Your task to perform on an android device: turn on improve location accuracy Image 0: 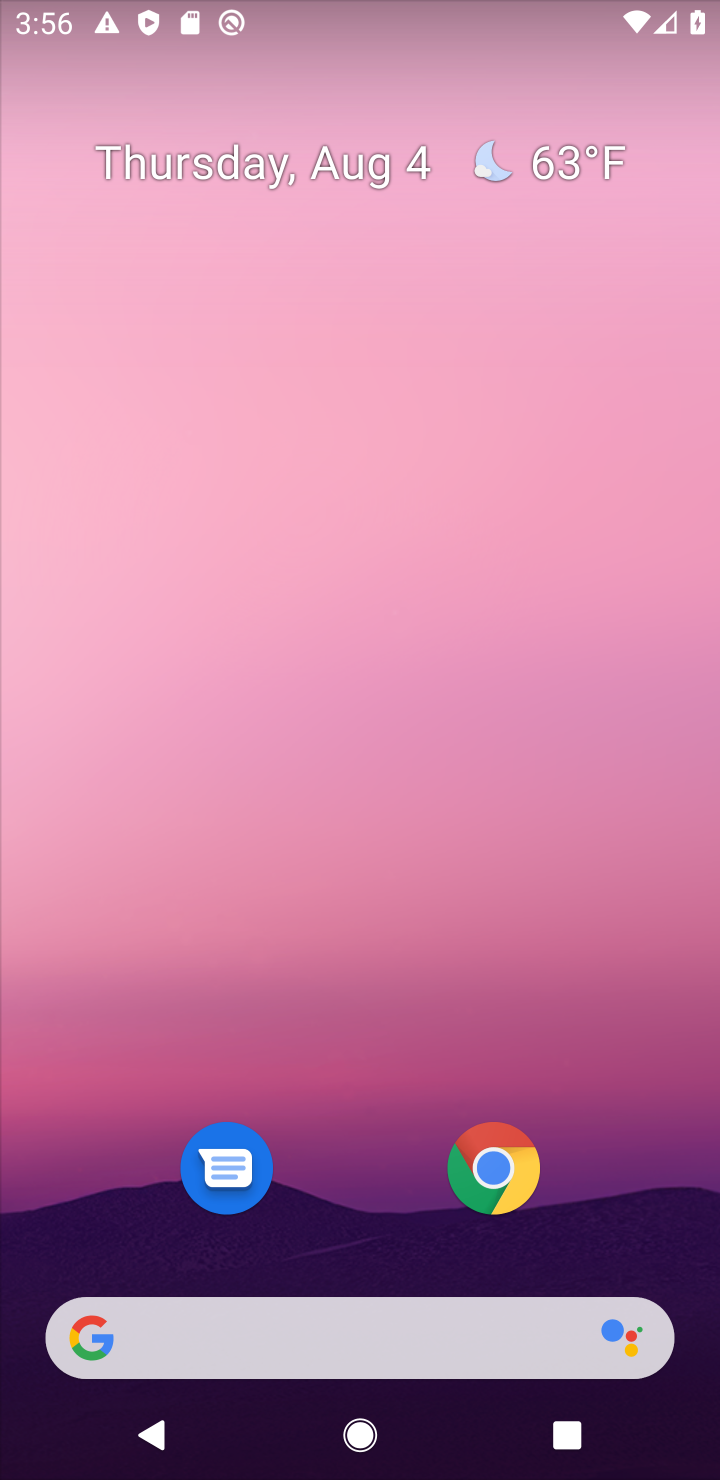
Step 0: drag from (351, 1303) to (288, 85)
Your task to perform on an android device: turn on improve location accuracy Image 1: 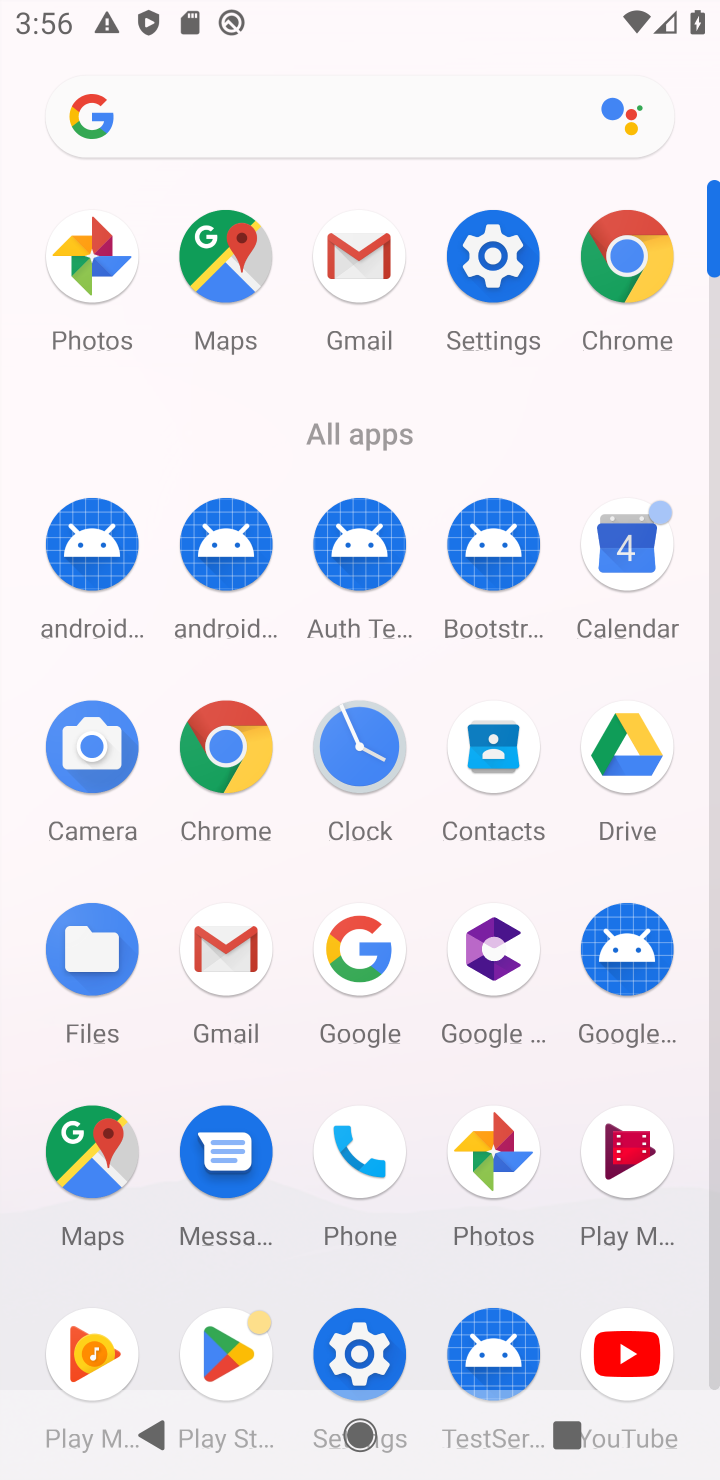
Step 1: click (485, 272)
Your task to perform on an android device: turn on improve location accuracy Image 2: 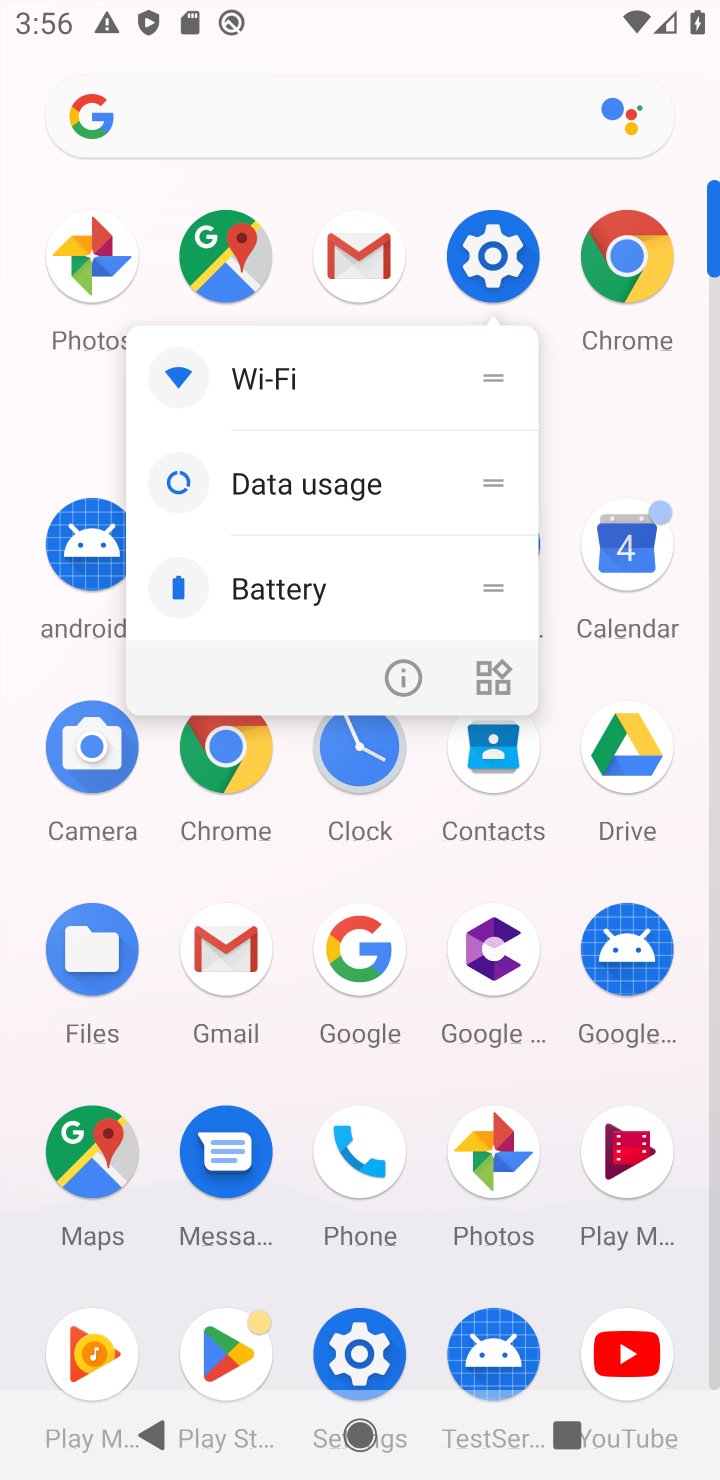
Step 2: click (520, 266)
Your task to perform on an android device: turn on improve location accuracy Image 3: 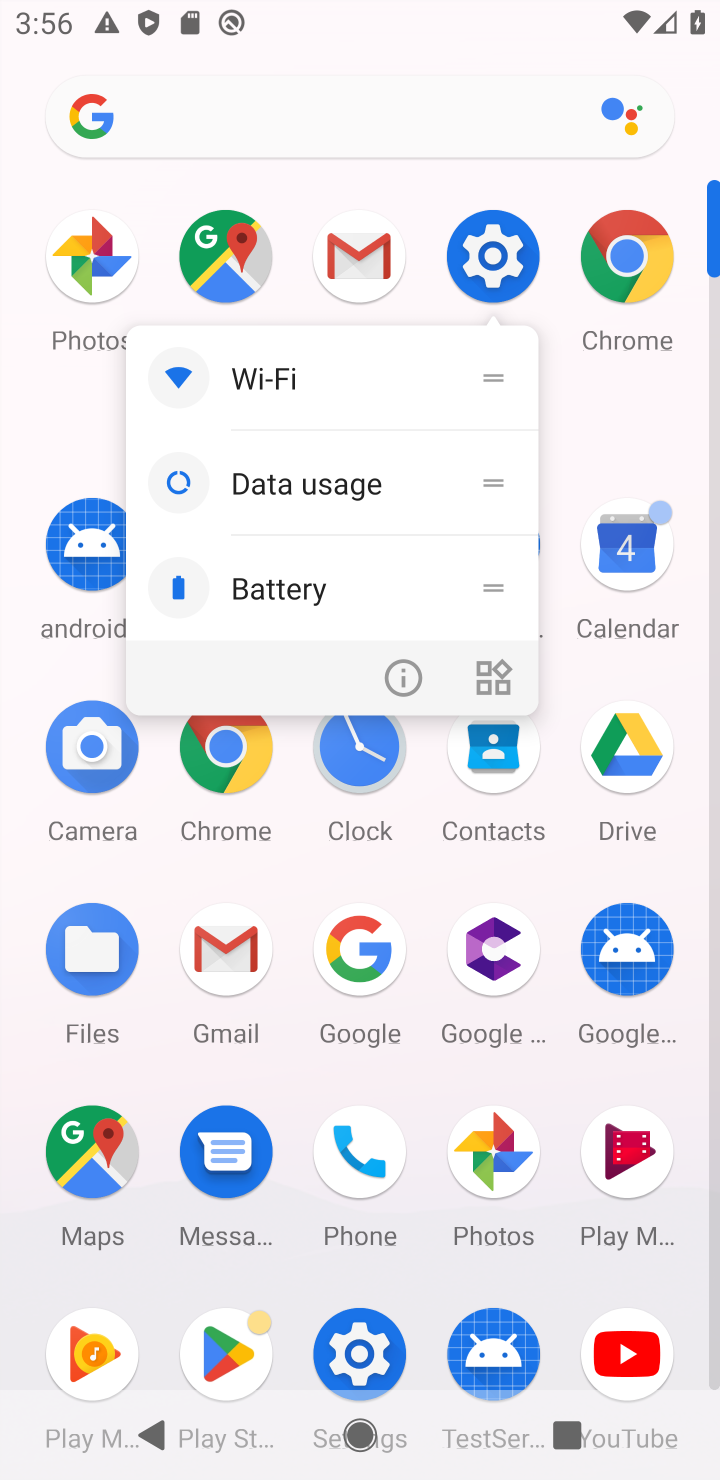
Step 3: click (392, 1325)
Your task to perform on an android device: turn on improve location accuracy Image 4: 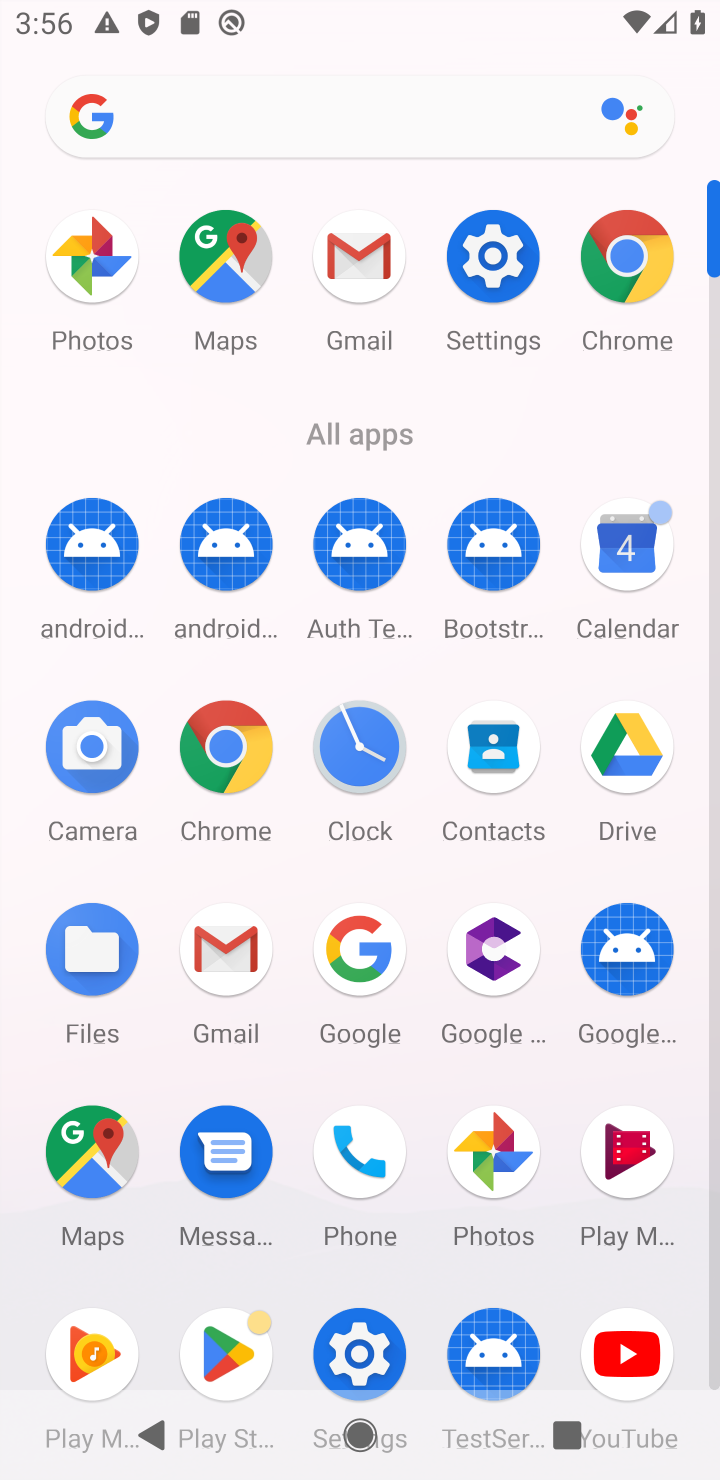
Step 4: click (365, 1334)
Your task to perform on an android device: turn on improve location accuracy Image 5: 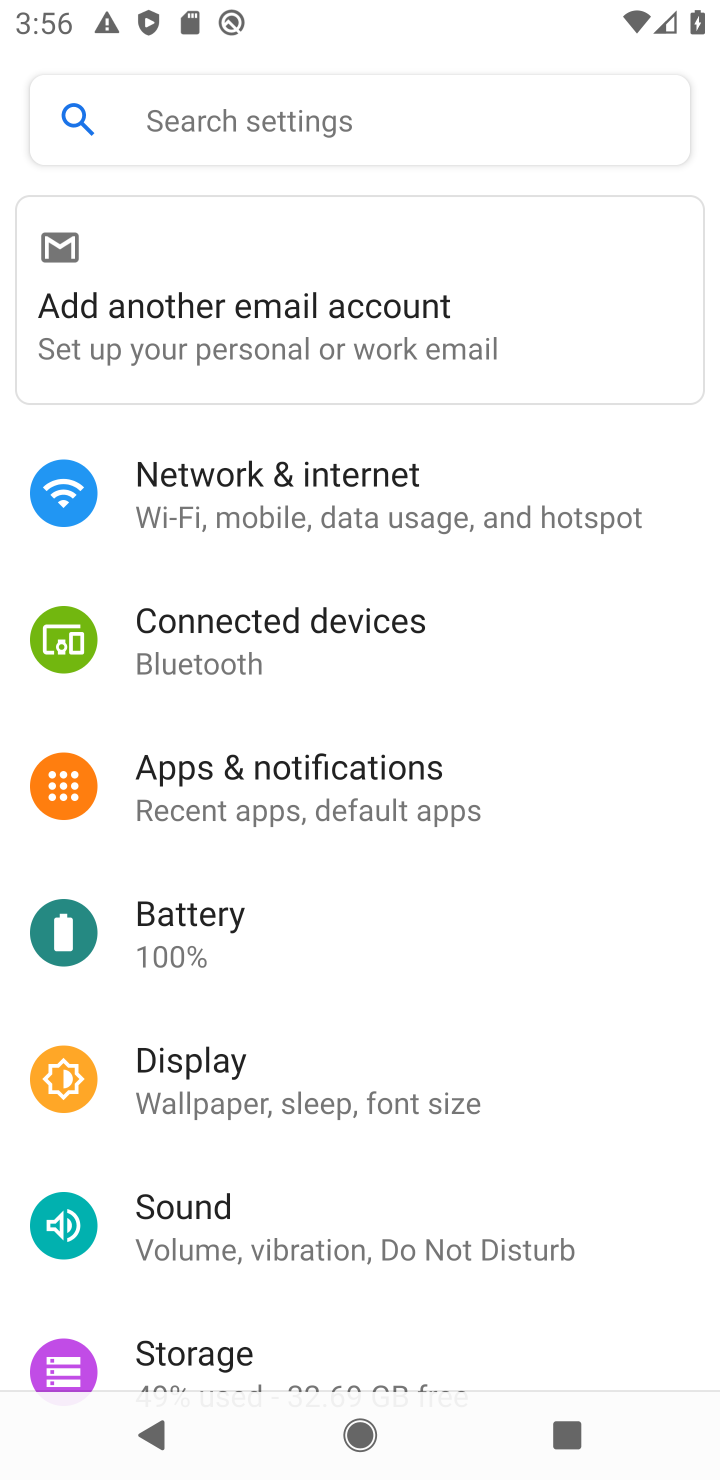
Step 5: drag from (406, 1243) to (375, 57)
Your task to perform on an android device: turn on improve location accuracy Image 6: 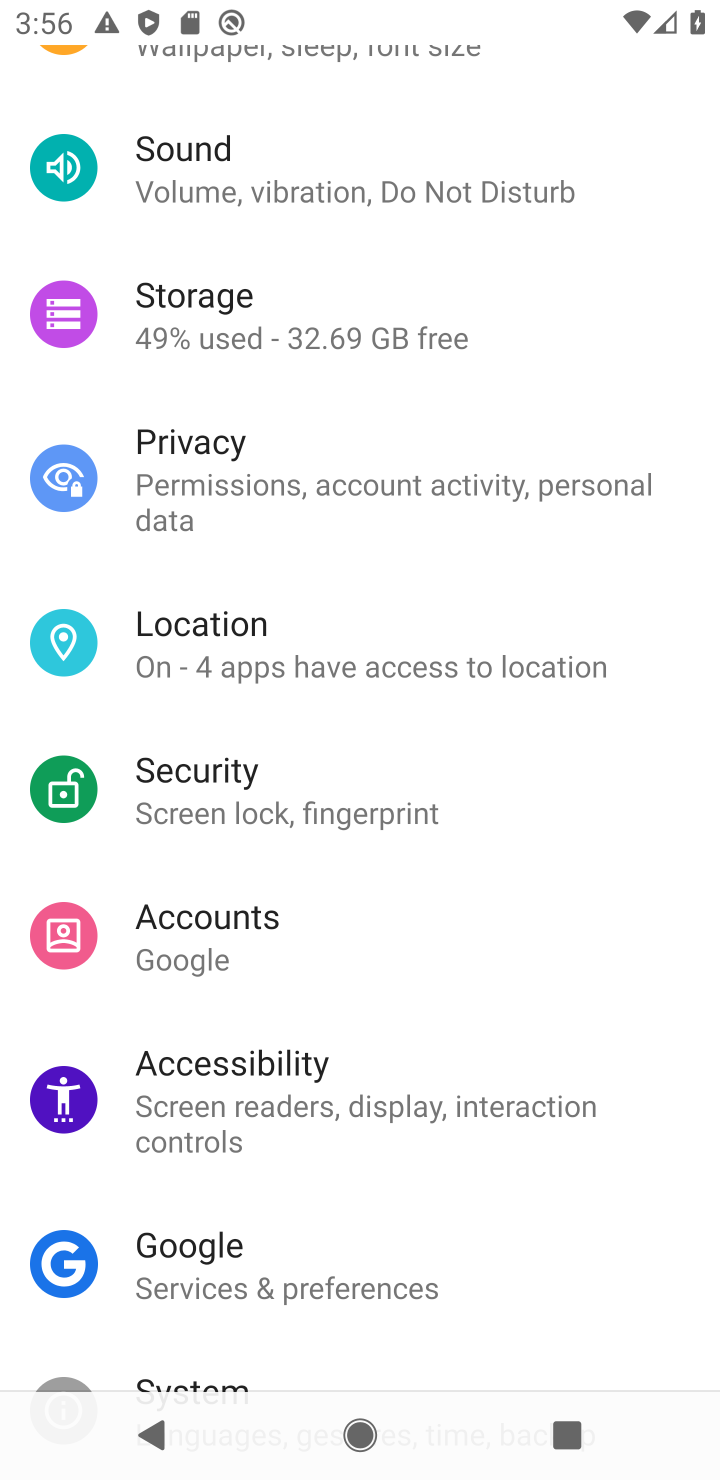
Step 6: drag from (378, 1181) to (359, 420)
Your task to perform on an android device: turn on improve location accuracy Image 7: 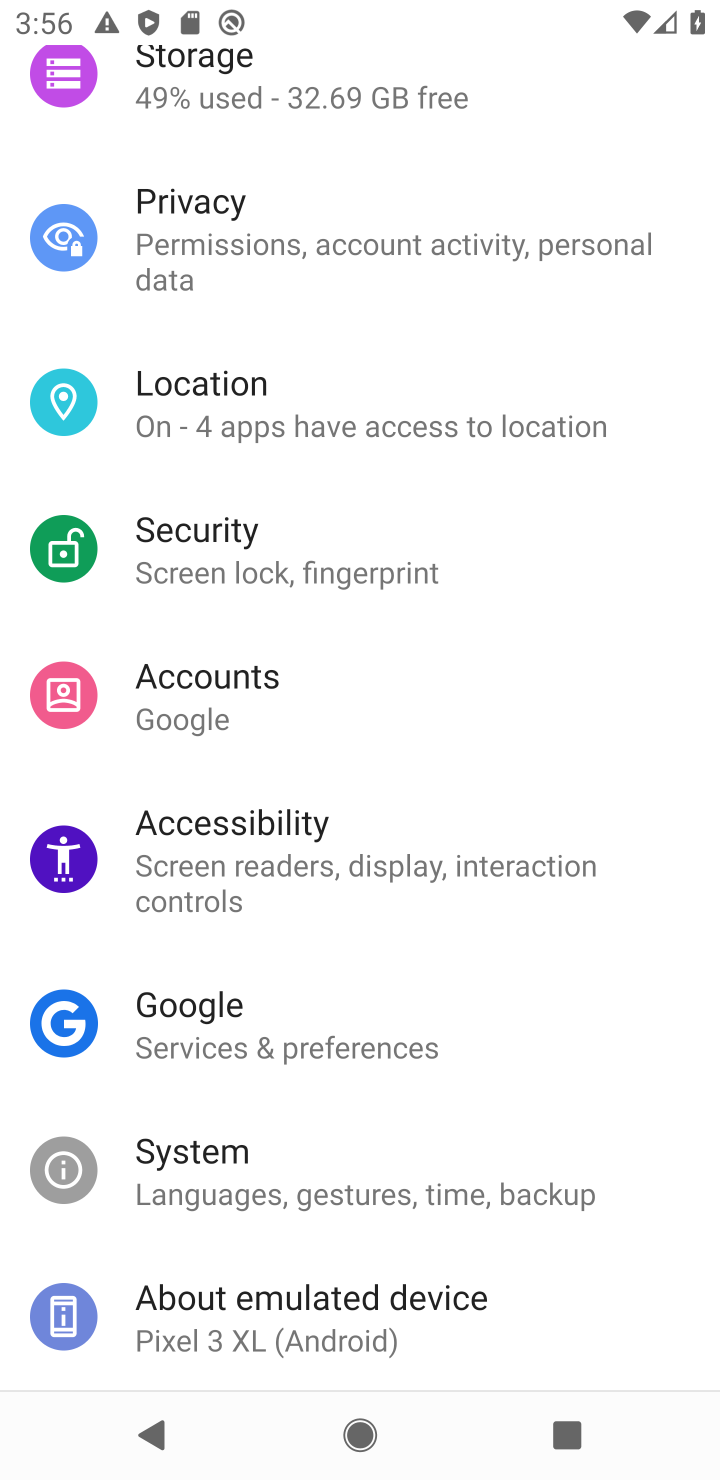
Step 7: click (286, 408)
Your task to perform on an android device: turn on improve location accuracy Image 8: 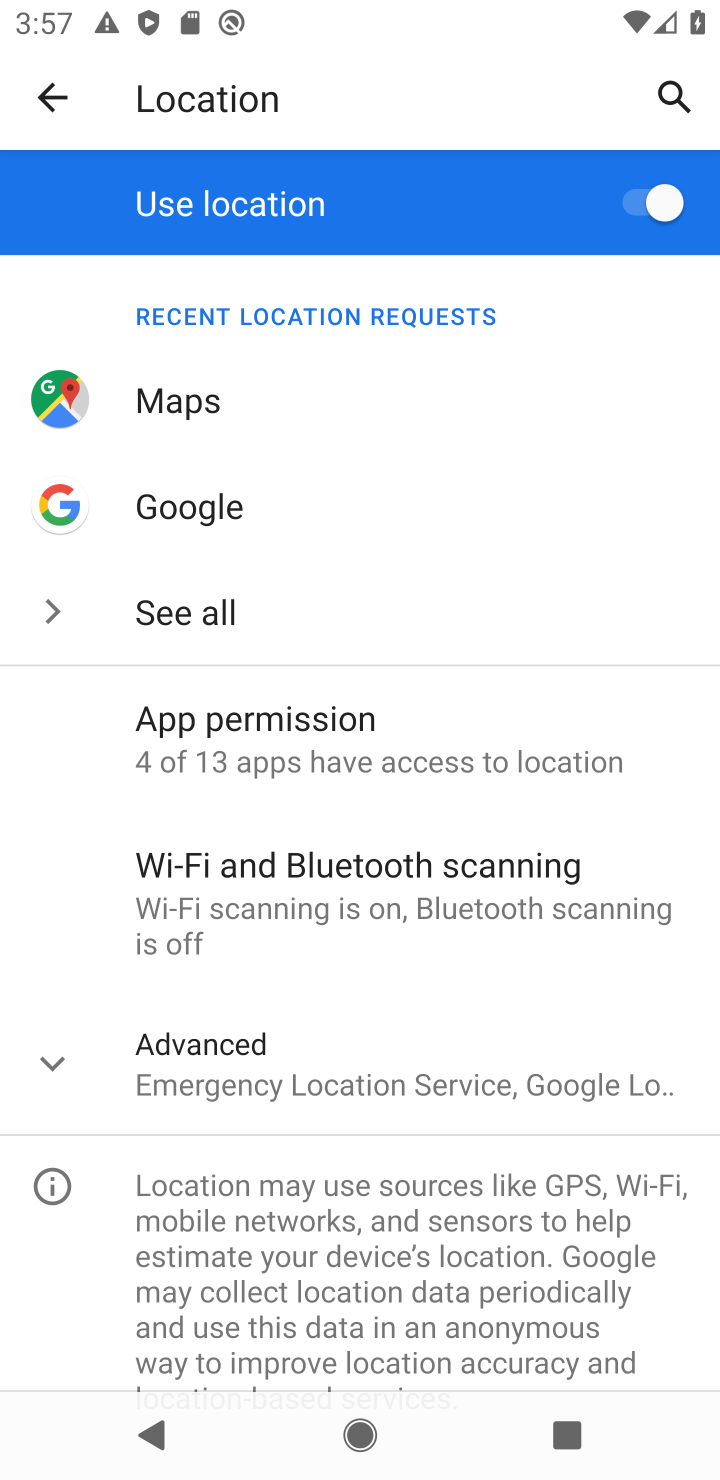
Step 8: click (272, 1025)
Your task to perform on an android device: turn on improve location accuracy Image 9: 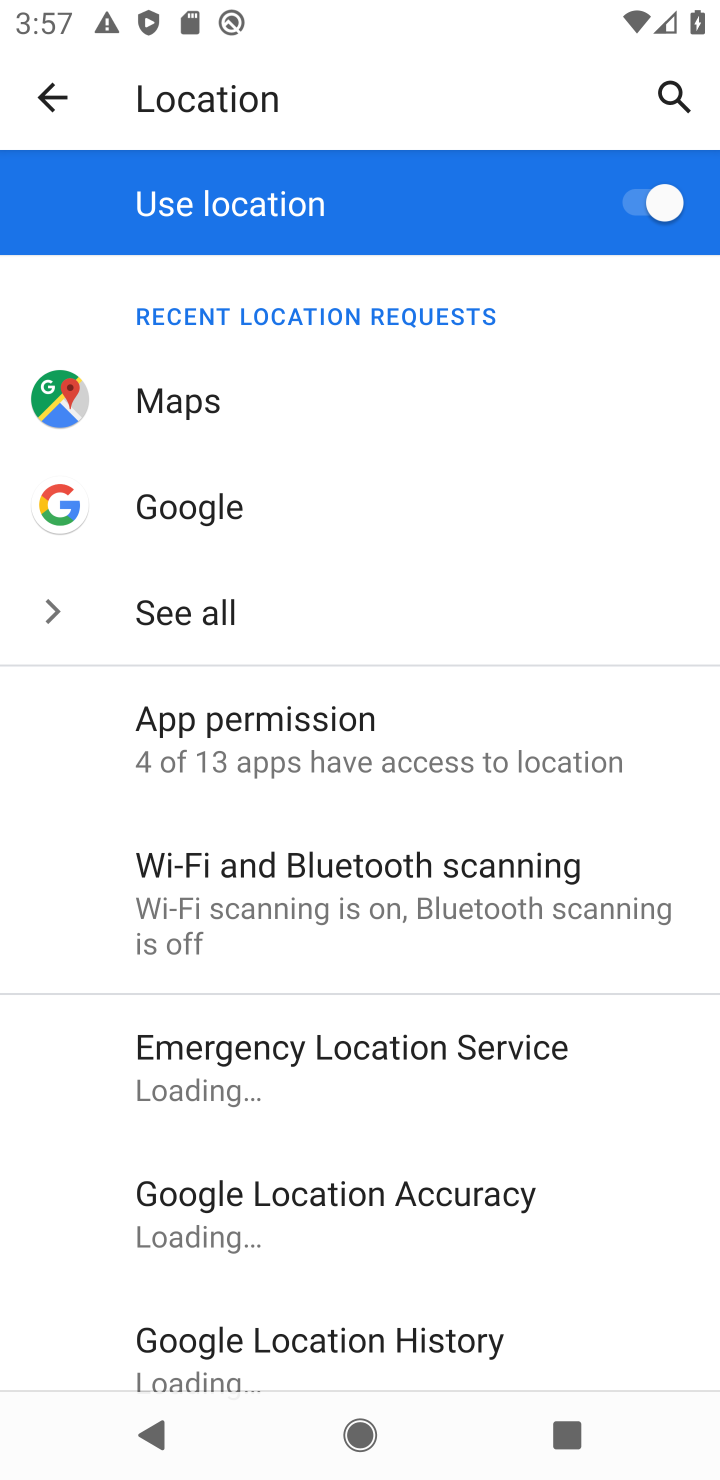
Step 9: click (429, 1177)
Your task to perform on an android device: turn on improve location accuracy Image 10: 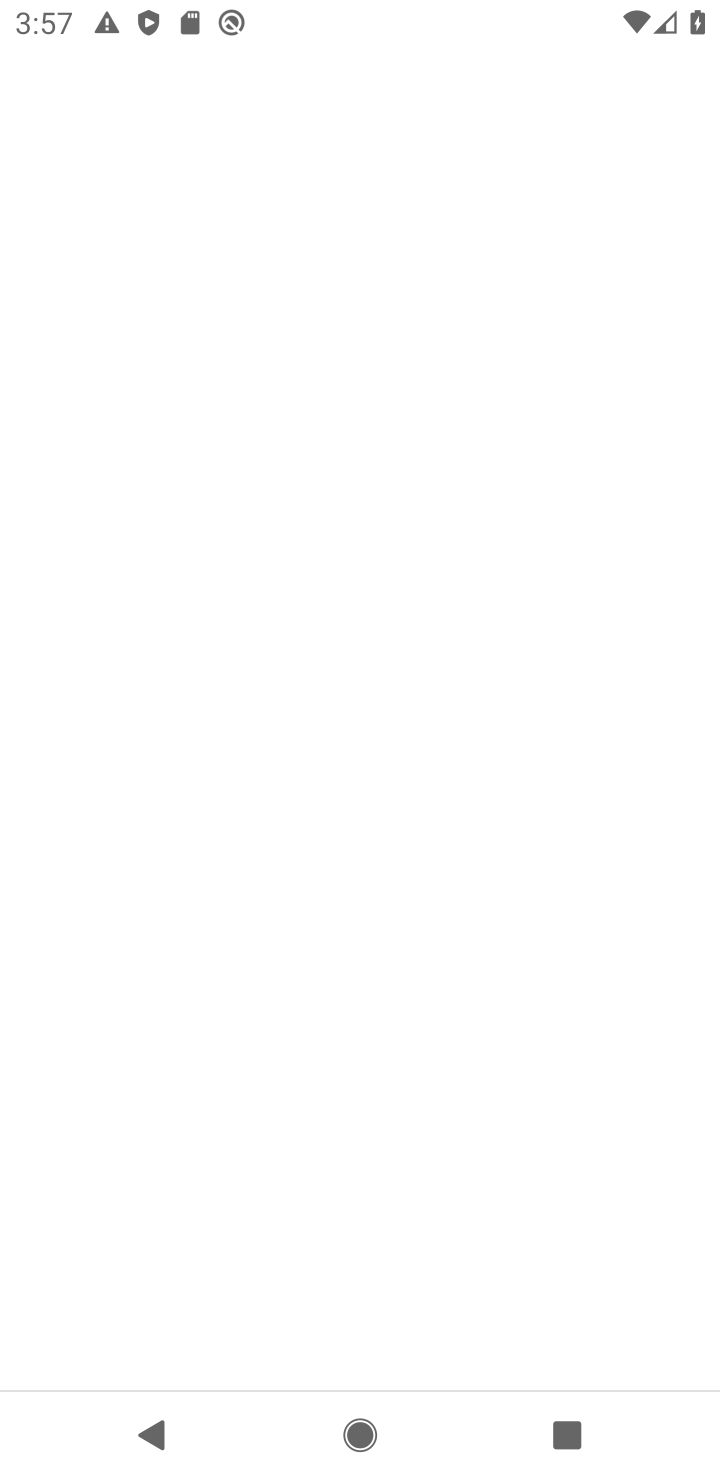
Step 10: task complete